Your task to perform on an android device: change the clock display to analog Image 0: 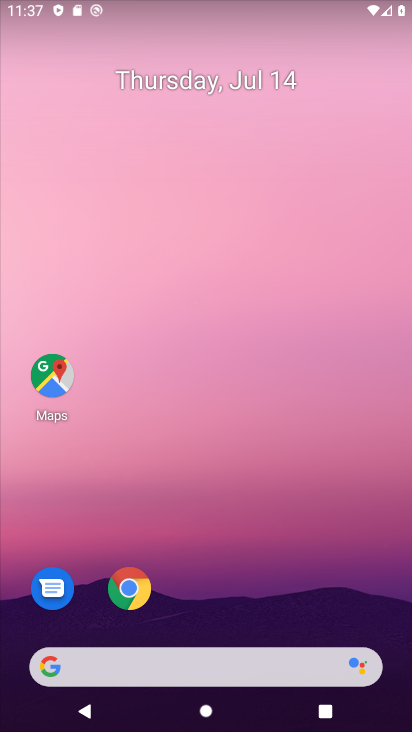
Step 0: drag from (295, 714) to (403, 399)
Your task to perform on an android device: change the clock display to analog Image 1: 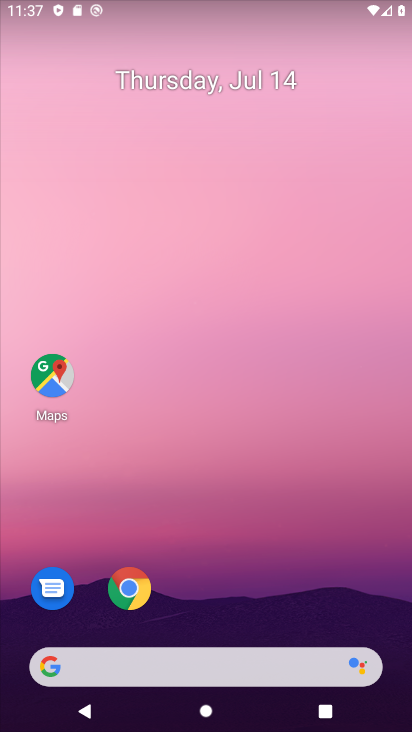
Step 1: drag from (249, 567) to (210, 52)
Your task to perform on an android device: change the clock display to analog Image 2: 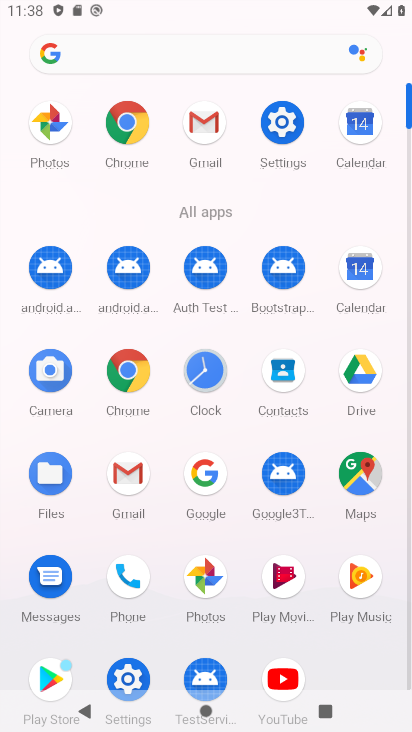
Step 2: click (217, 370)
Your task to perform on an android device: change the clock display to analog Image 3: 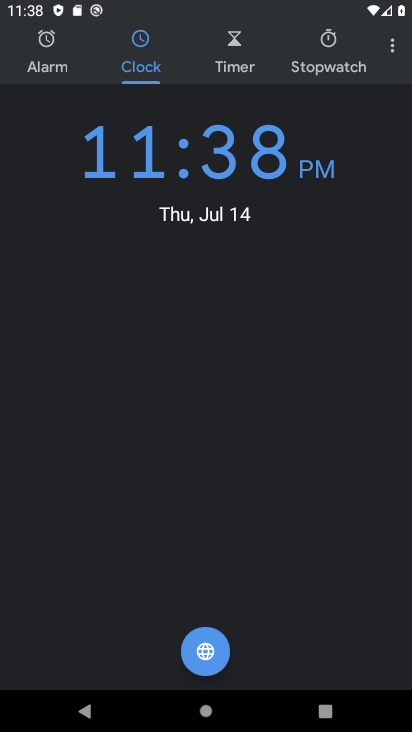
Step 3: click (394, 42)
Your task to perform on an android device: change the clock display to analog Image 4: 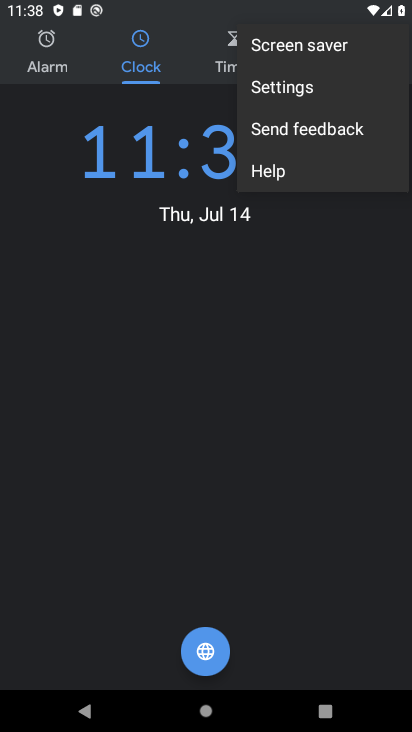
Step 4: click (319, 101)
Your task to perform on an android device: change the clock display to analog Image 5: 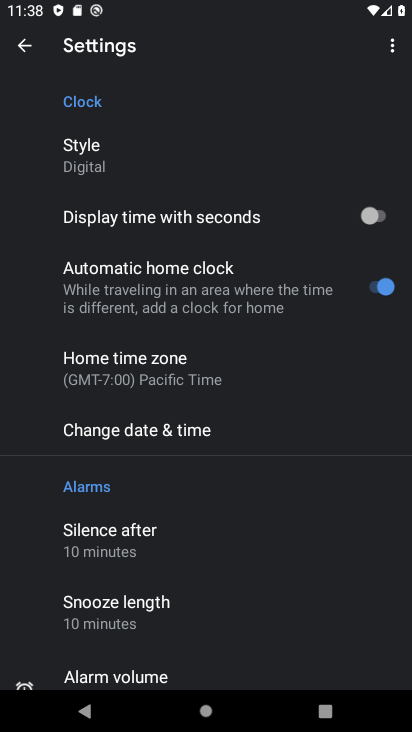
Step 5: click (78, 156)
Your task to perform on an android device: change the clock display to analog Image 6: 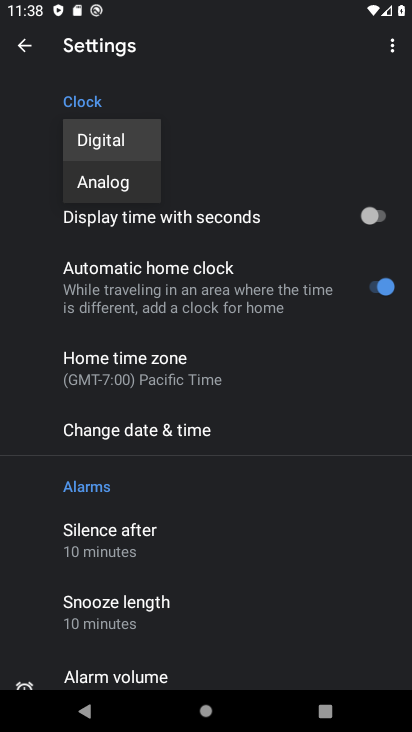
Step 6: click (122, 184)
Your task to perform on an android device: change the clock display to analog Image 7: 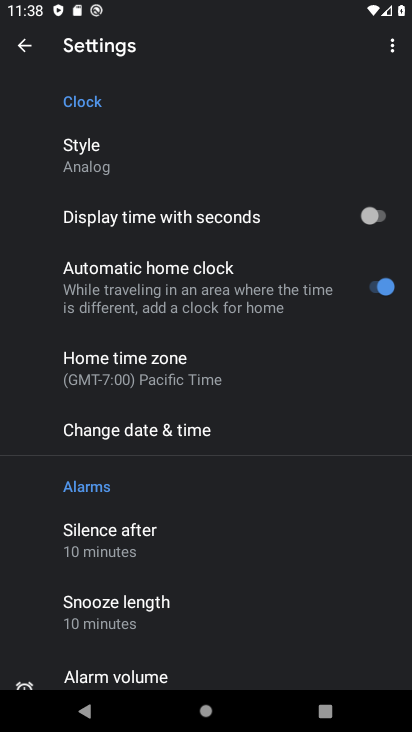
Step 7: task complete